Your task to perform on an android device: Open CNN.com Image 0: 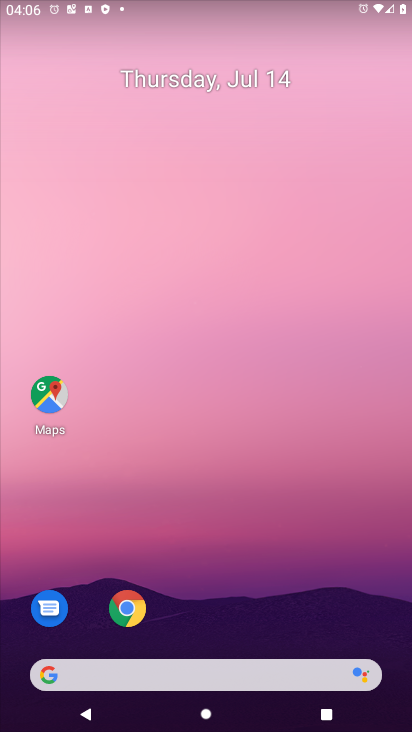
Step 0: click (130, 609)
Your task to perform on an android device: Open CNN.com Image 1: 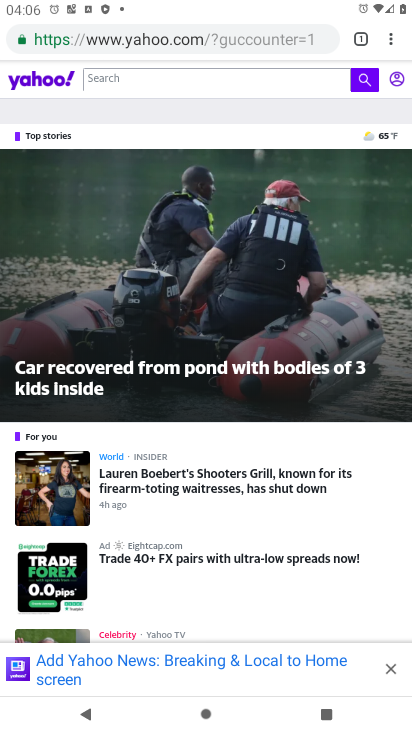
Step 1: click (252, 32)
Your task to perform on an android device: Open CNN.com Image 2: 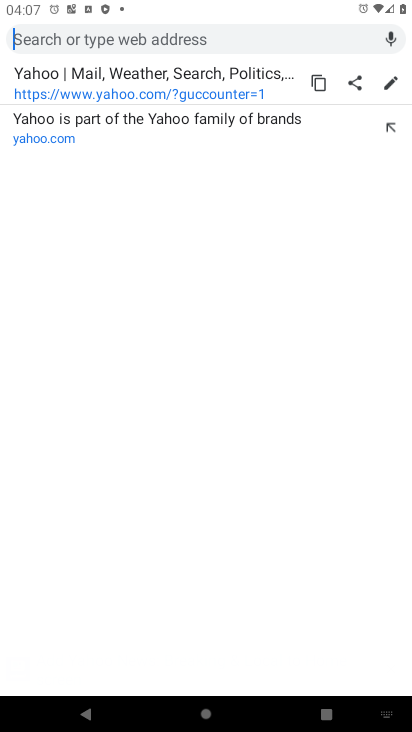
Step 2: type "CNN.com"
Your task to perform on an android device: Open CNN.com Image 3: 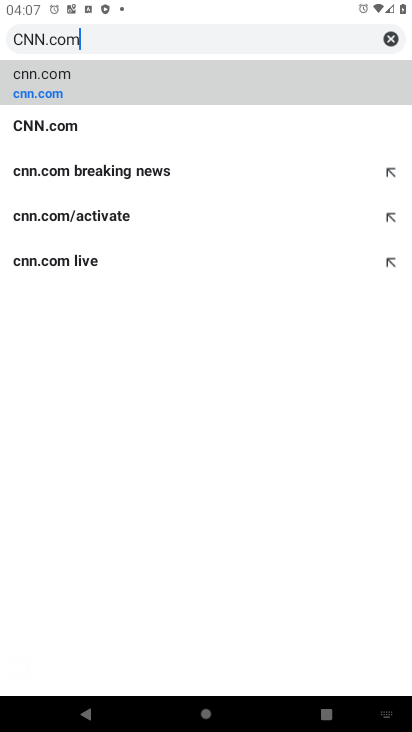
Step 3: click (40, 74)
Your task to perform on an android device: Open CNN.com Image 4: 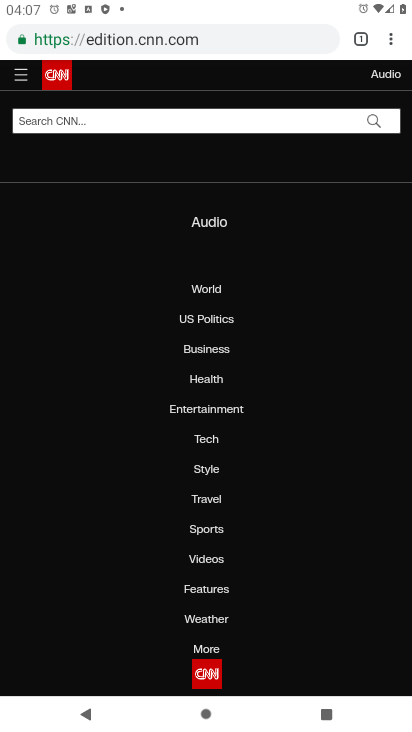
Step 4: task complete